Your task to perform on an android device: turn on showing notifications on the lock screen Image 0: 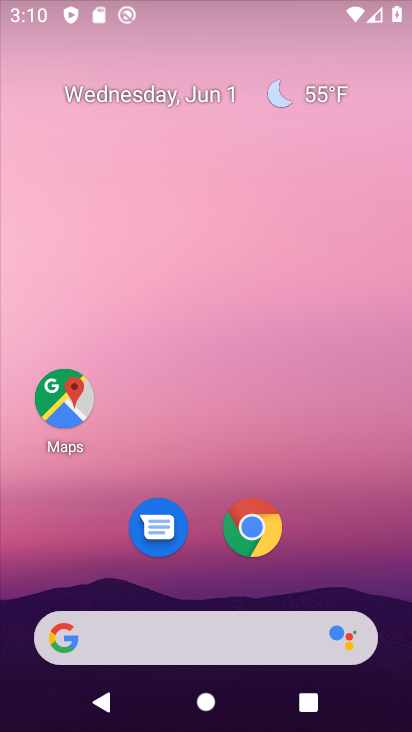
Step 0: press home button
Your task to perform on an android device: turn on showing notifications on the lock screen Image 1: 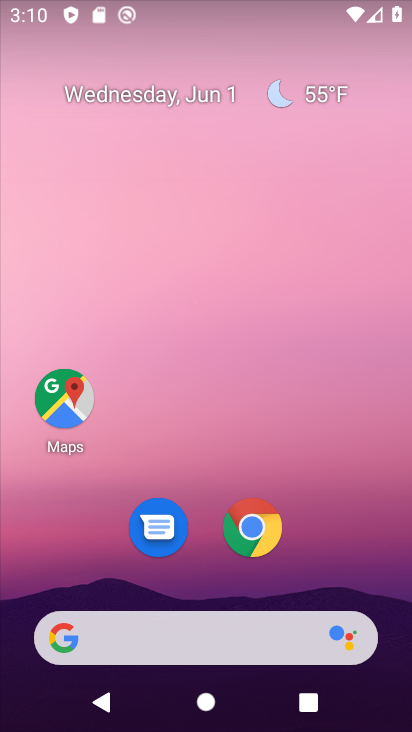
Step 1: drag from (254, 571) to (278, 66)
Your task to perform on an android device: turn on showing notifications on the lock screen Image 2: 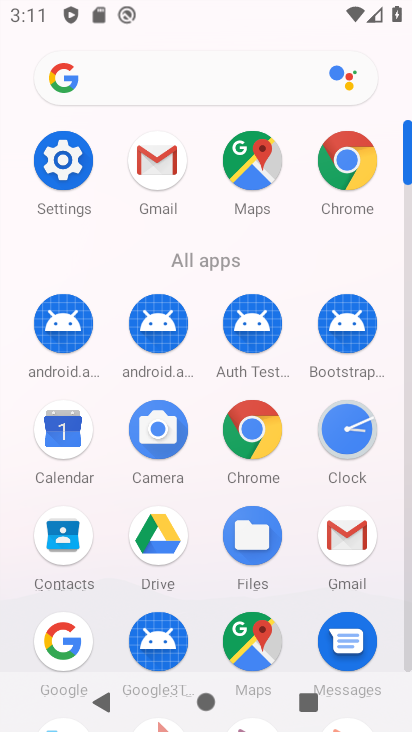
Step 2: click (64, 158)
Your task to perform on an android device: turn on showing notifications on the lock screen Image 3: 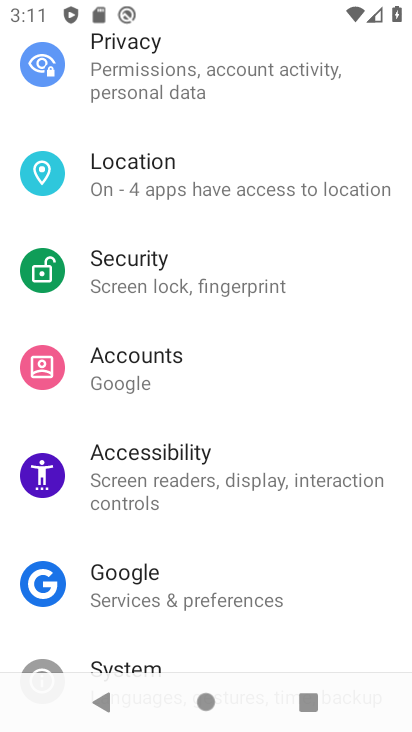
Step 3: drag from (293, 496) to (327, 555)
Your task to perform on an android device: turn on showing notifications on the lock screen Image 4: 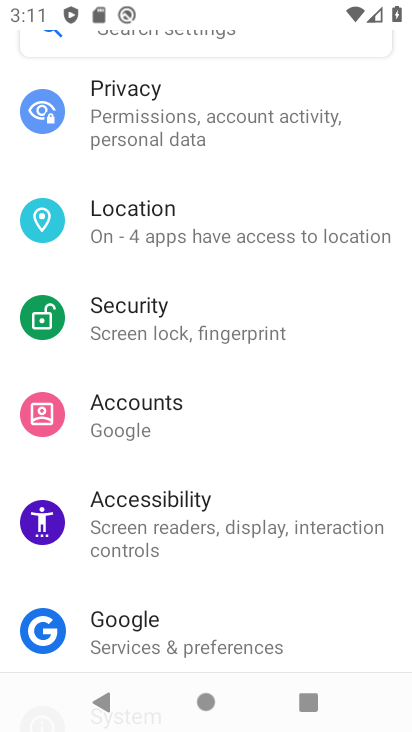
Step 4: drag from (222, 144) to (206, 729)
Your task to perform on an android device: turn on showing notifications on the lock screen Image 5: 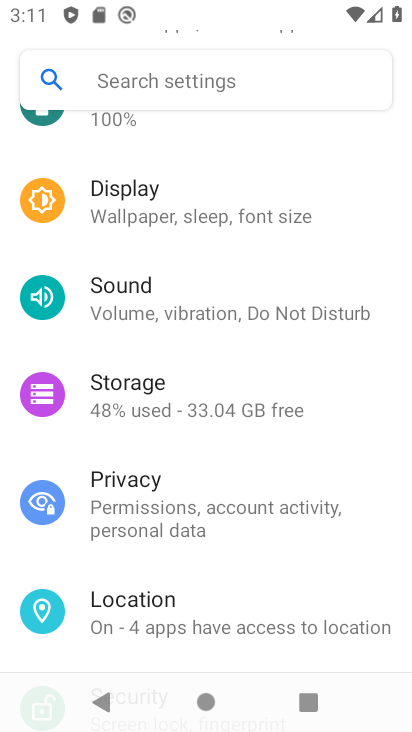
Step 5: drag from (233, 230) to (259, 560)
Your task to perform on an android device: turn on showing notifications on the lock screen Image 6: 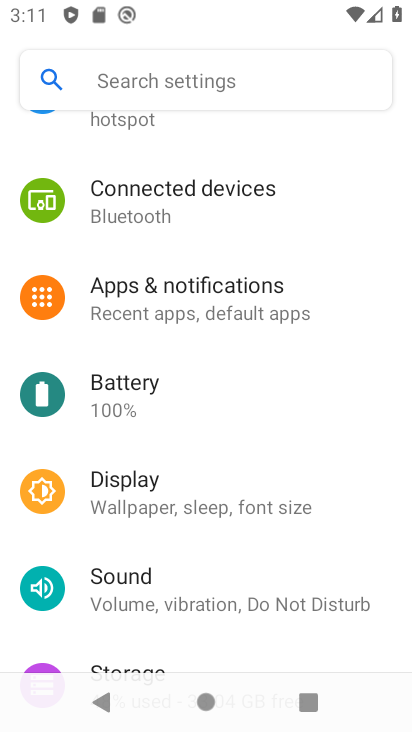
Step 6: click (153, 319)
Your task to perform on an android device: turn on showing notifications on the lock screen Image 7: 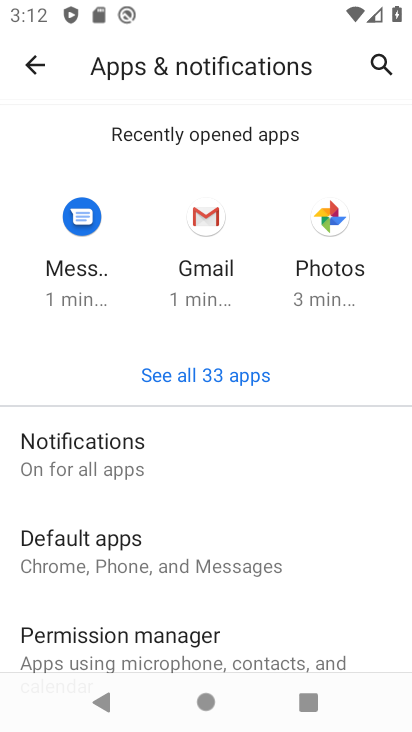
Step 7: click (201, 458)
Your task to perform on an android device: turn on showing notifications on the lock screen Image 8: 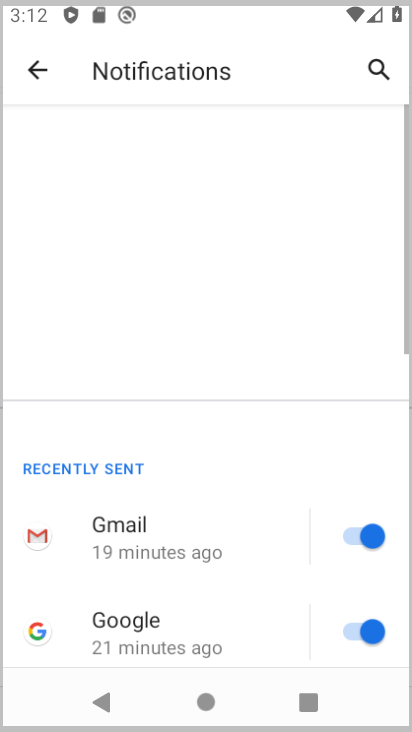
Step 8: drag from (268, 599) to (252, 251)
Your task to perform on an android device: turn on showing notifications on the lock screen Image 9: 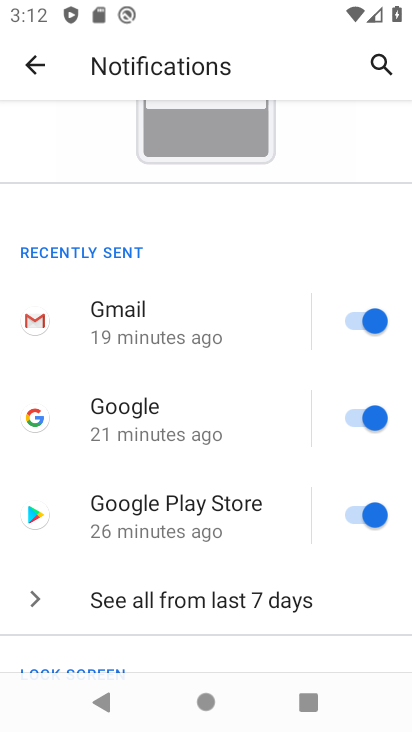
Step 9: drag from (200, 540) to (193, 253)
Your task to perform on an android device: turn on showing notifications on the lock screen Image 10: 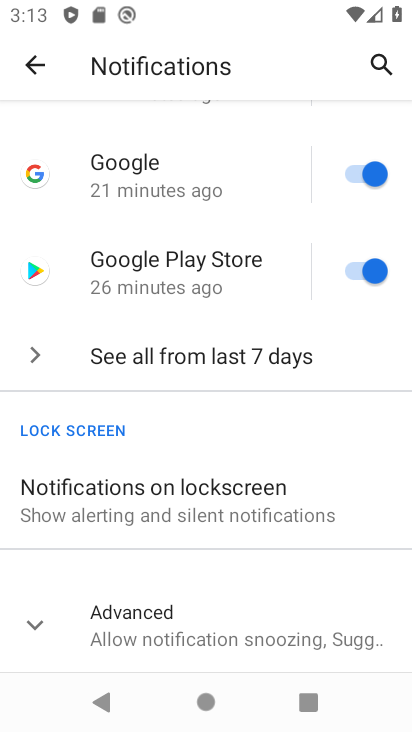
Step 10: click (206, 493)
Your task to perform on an android device: turn on showing notifications on the lock screen Image 11: 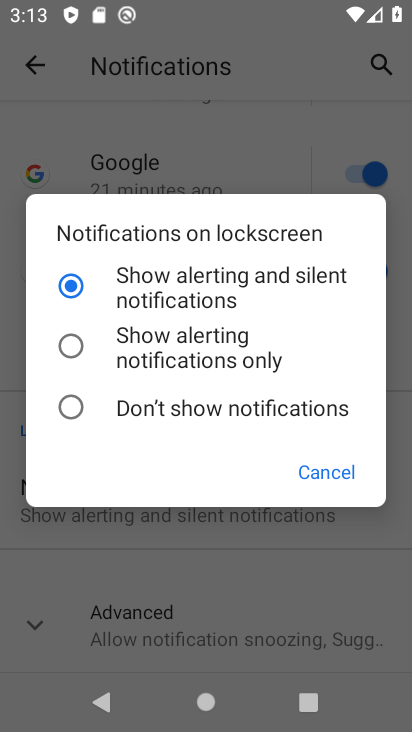
Step 11: click (352, 468)
Your task to perform on an android device: turn on showing notifications on the lock screen Image 12: 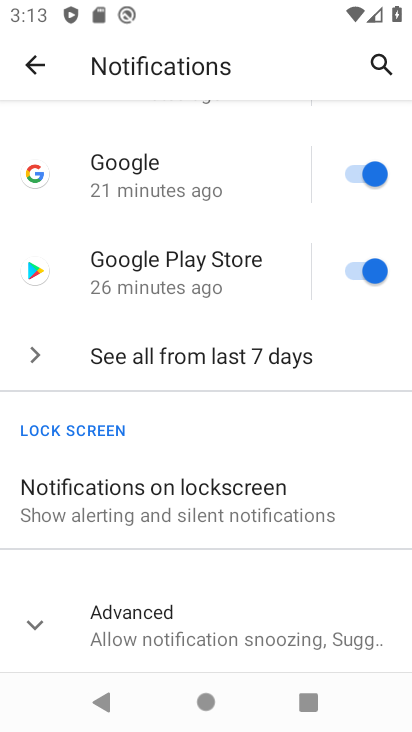
Step 12: click (153, 517)
Your task to perform on an android device: turn on showing notifications on the lock screen Image 13: 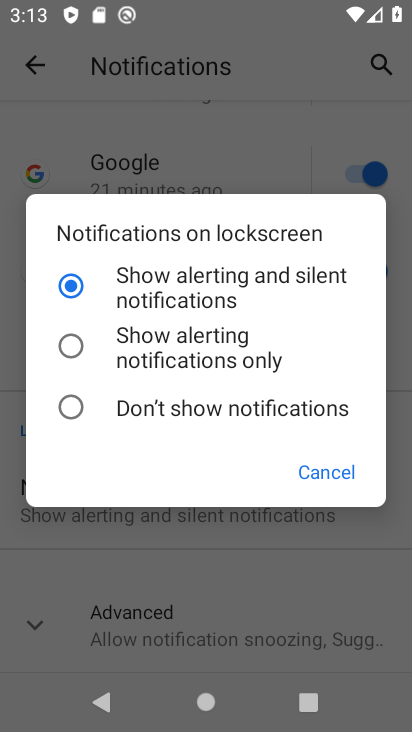
Step 13: click (155, 355)
Your task to perform on an android device: turn on showing notifications on the lock screen Image 14: 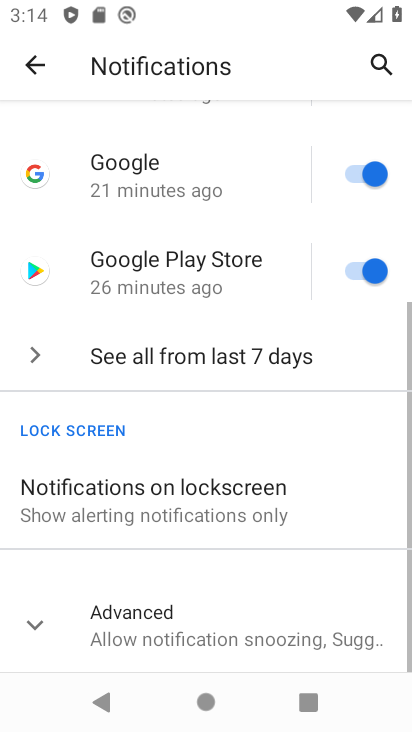
Step 14: task complete